Your task to perform on an android device: Go to settings Image 0: 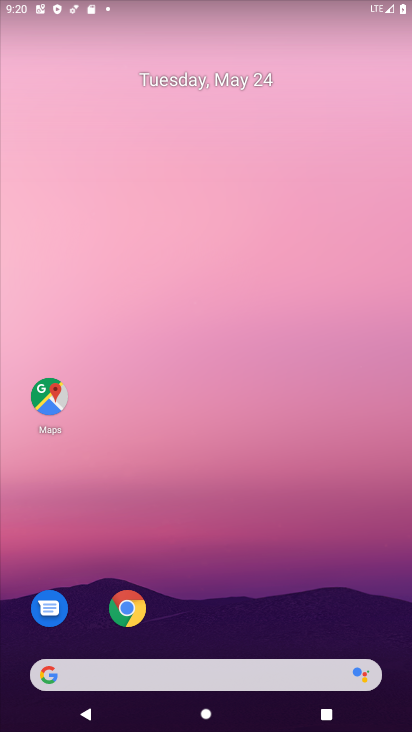
Step 0: drag from (222, 647) to (158, 16)
Your task to perform on an android device: Go to settings Image 1: 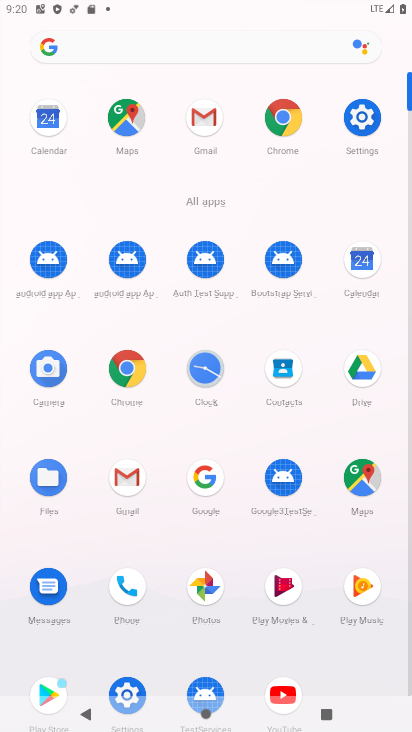
Step 1: click (368, 138)
Your task to perform on an android device: Go to settings Image 2: 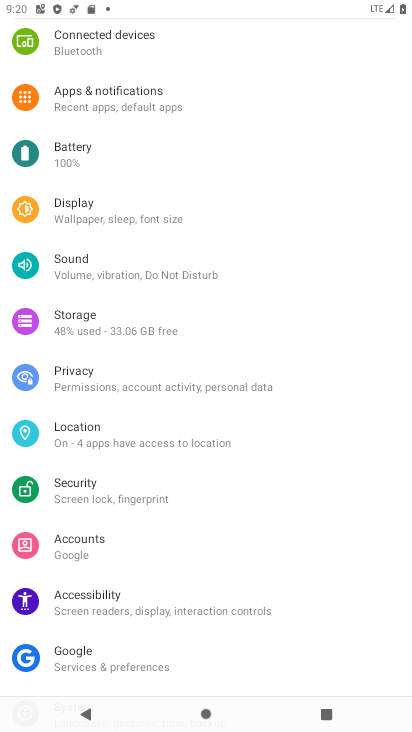
Step 2: task complete